Your task to perform on an android device: delete location history Image 0: 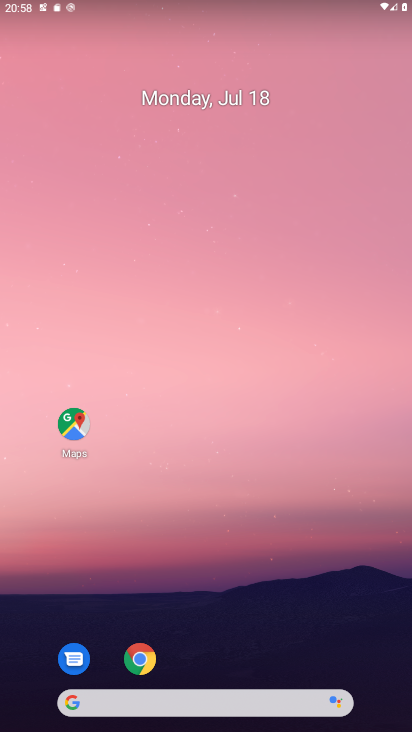
Step 0: drag from (225, 619) to (175, 190)
Your task to perform on an android device: delete location history Image 1: 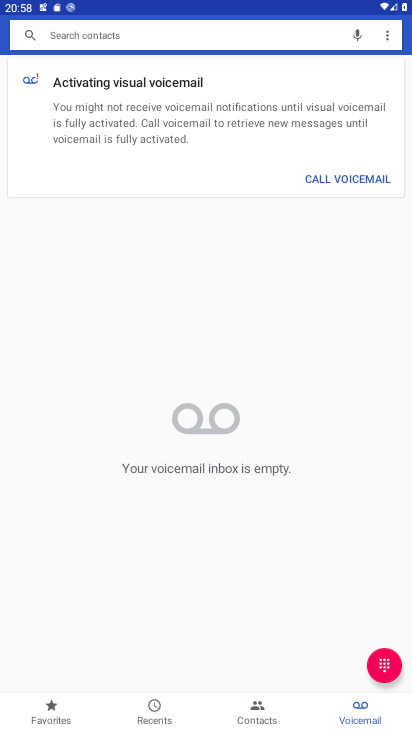
Step 1: press back button
Your task to perform on an android device: delete location history Image 2: 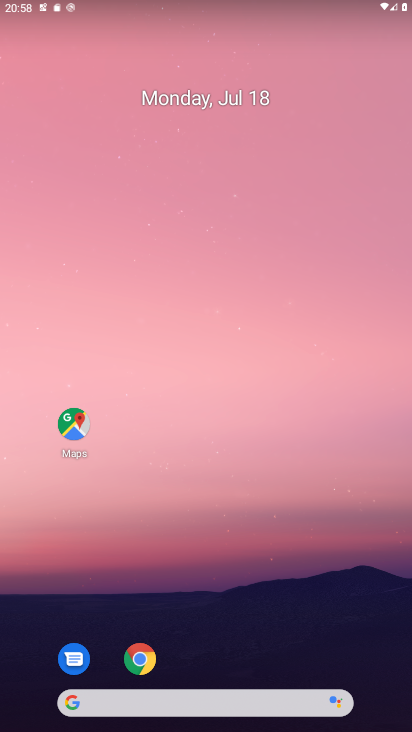
Step 2: drag from (231, 680) to (200, 161)
Your task to perform on an android device: delete location history Image 3: 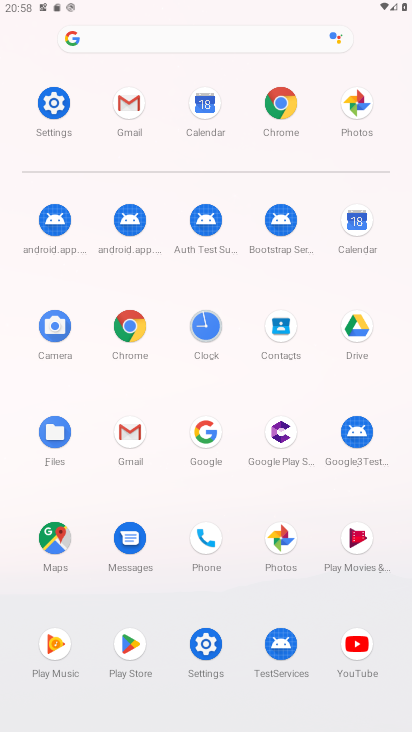
Step 3: click (43, 106)
Your task to perform on an android device: delete location history Image 4: 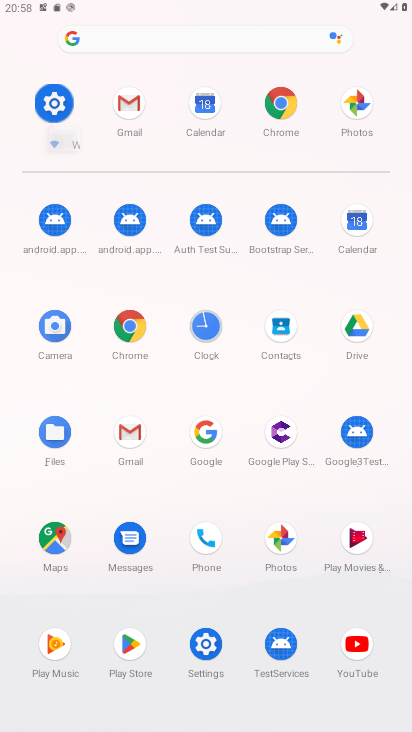
Step 4: click (45, 102)
Your task to perform on an android device: delete location history Image 5: 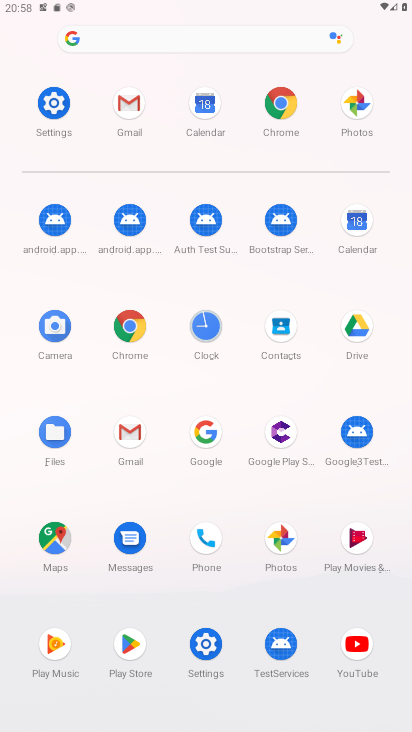
Step 5: click (52, 109)
Your task to perform on an android device: delete location history Image 6: 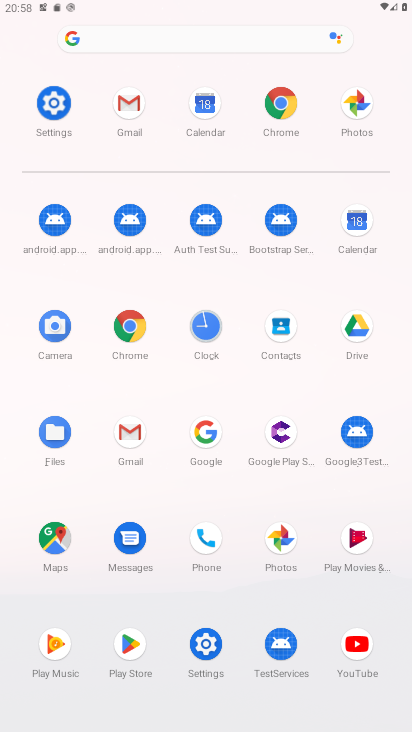
Step 6: click (53, 109)
Your task to perform on an android device: delete location history Image 7: 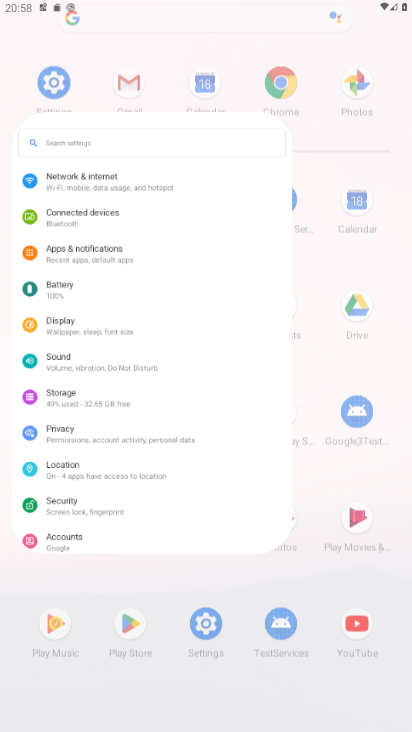
Step 7: click (58, 110)
Your task to perform on an android device: delete location history Image 8: 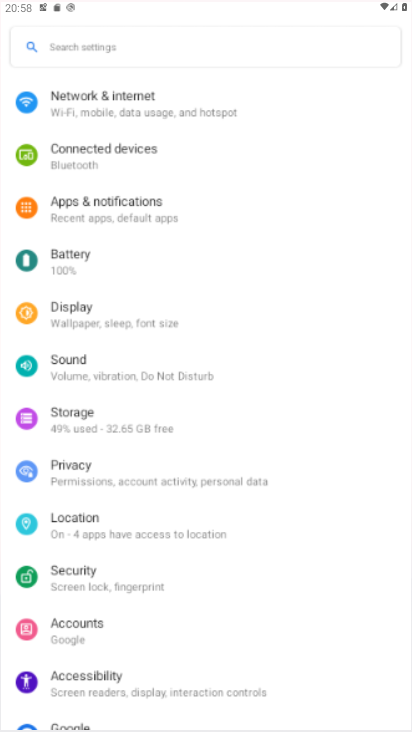
Step 8: click (56, 112)
Your task to perform on an android device: delete location history Image 9: 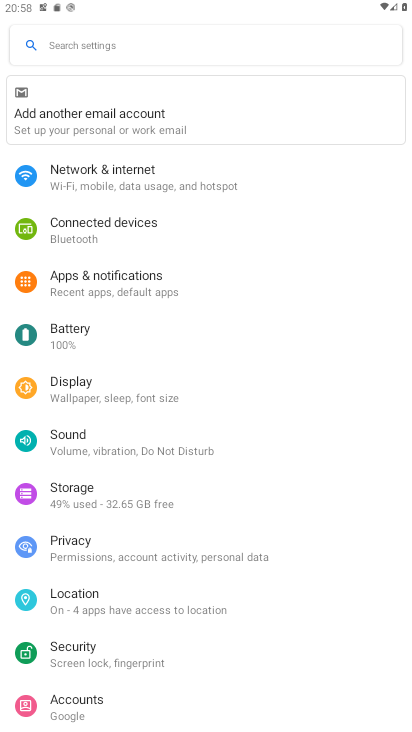
Step 9: click (81, 592)
Your task to perform on an android device: delete location history Image 10: 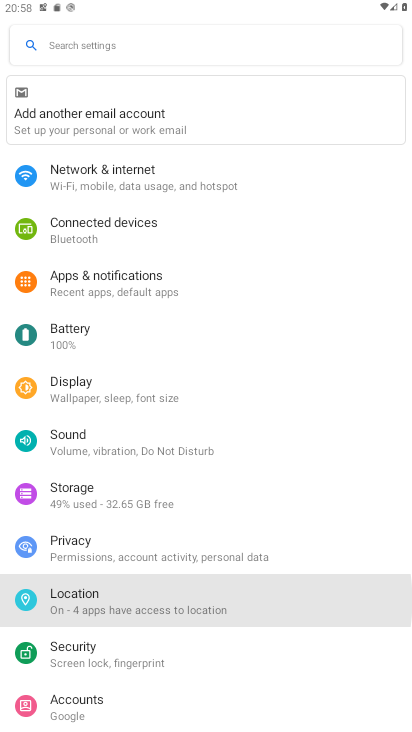
Step 10: click (89, 605)
Your task to perform on an android device: delete location history Image 11: 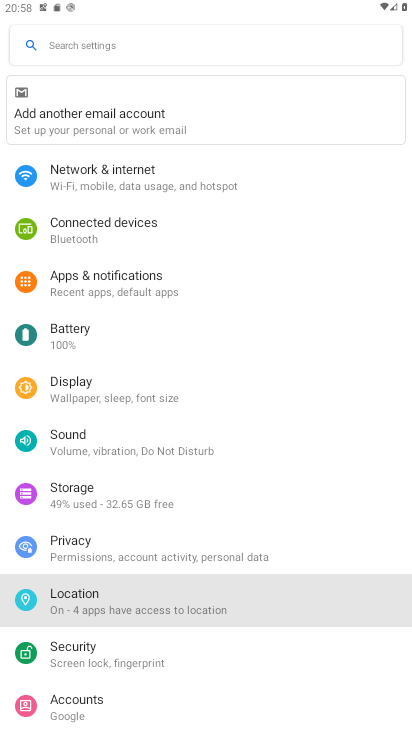
Step 11: click (89, 605)
Your task to perform on an android device: delete location history Image 12: 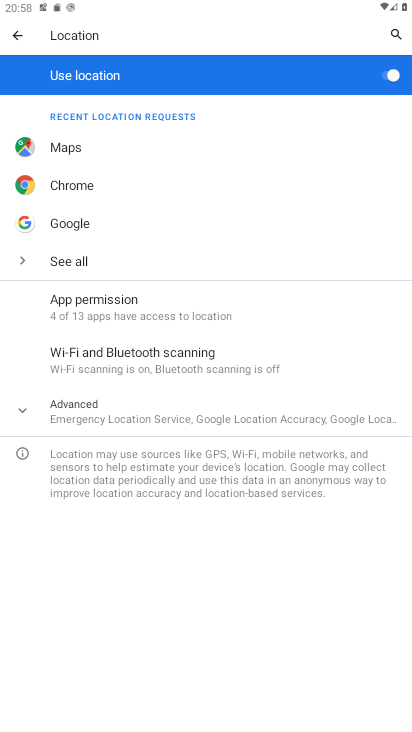
Step 12: click (82, 409)
Your task to perform on an android device: delete location history Image 13: 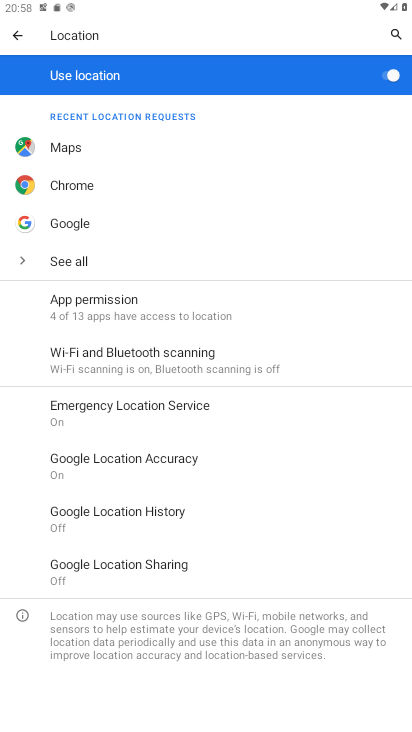
Step 13: click (139, 512)
Your task to perform on an android device: delete location history Image 14: 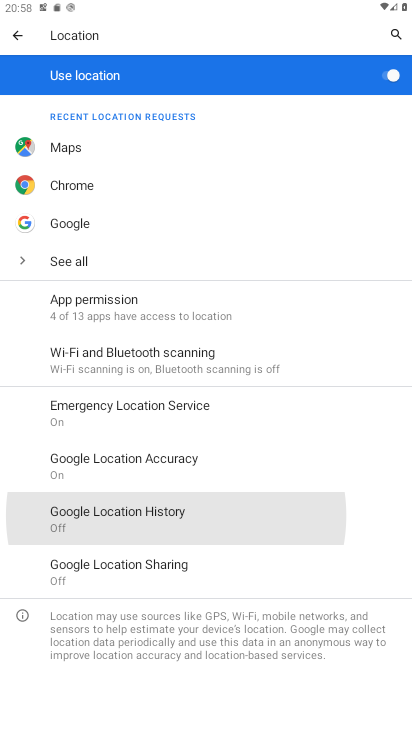
Step 14: click (138, 514)
Your task to perform on an android device: delete location history Image 15: 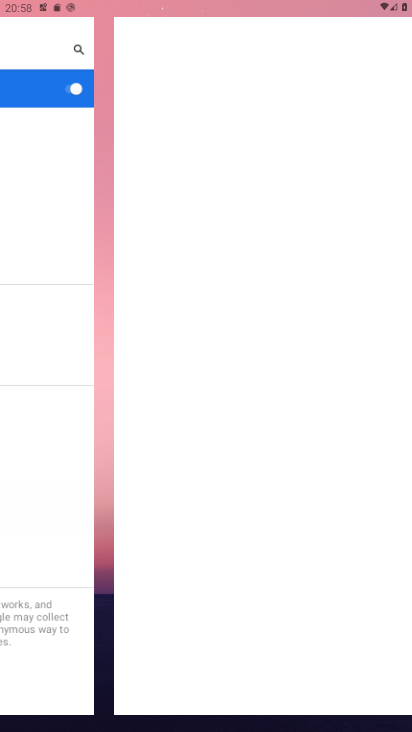
Step 15: click (138, 514)
Your task to perform on an android device: delete location history Image 16: 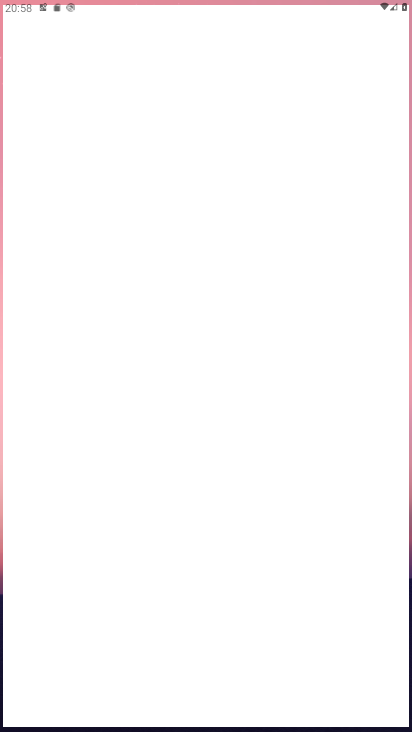
Step 16: click (138, 514)
Your task to perform on an android device: delete location history Image 17: 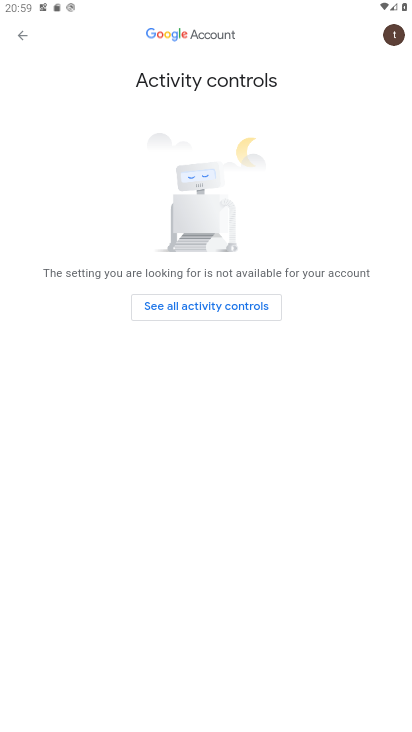
Step 17: task complete